Your task to perform on an android device: toggle sleep mode Image 0: 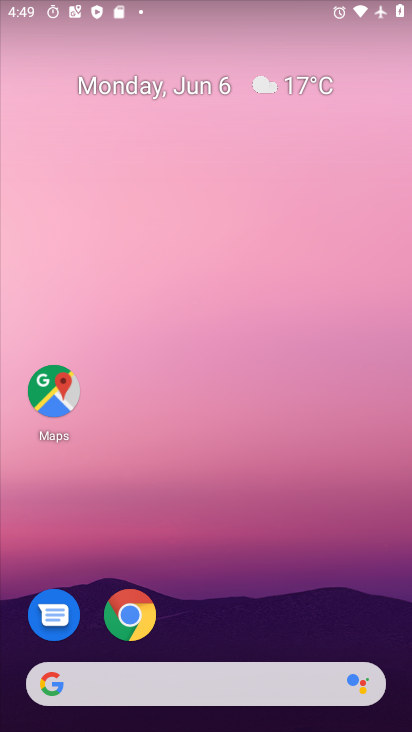
Step 0: drag from (250, 556) to (170, 34)
Your task to perform on an android device: toggle sleep mode Image 1: 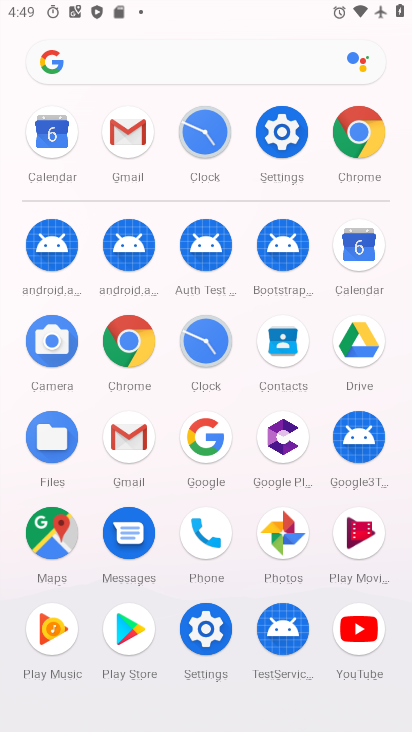
Step 1: drag from (10, 569) to (8, 227)
Your task to perform on an android device: toggle sleep mode Image 2: 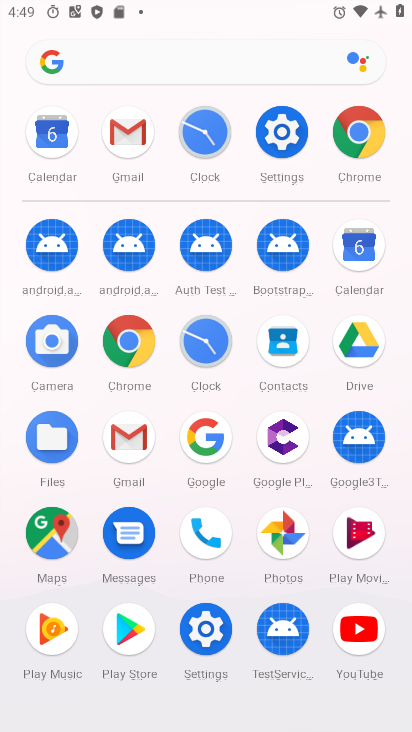
Step 2: click (205, 624)
Your task to perform on an android device: toggle sleep mode Image 3: 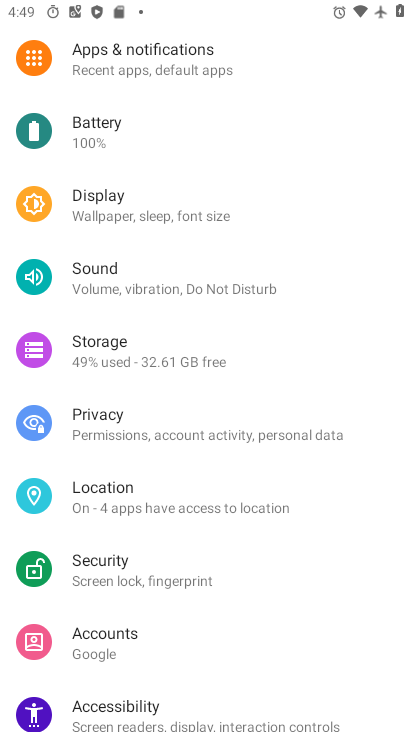
Step 3: drag from (252, 423) to (251, 644)
Your task to perform on an android device: toggle sleep mode Image 4: 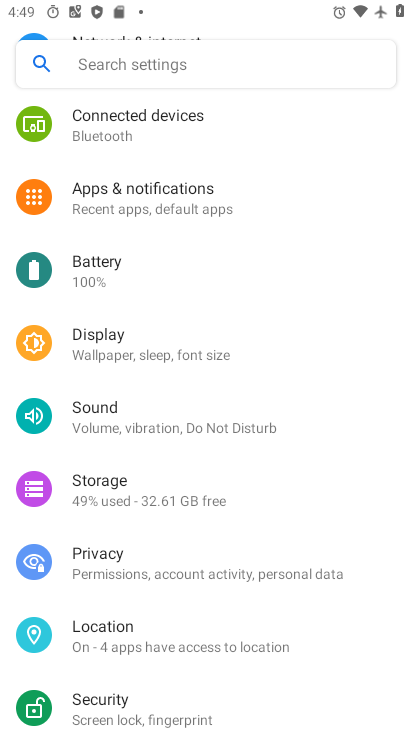
Step 4: drag from (266, 169) to (229, 550)
Your task to perform on an android device: toggle sleep mode Image 5: 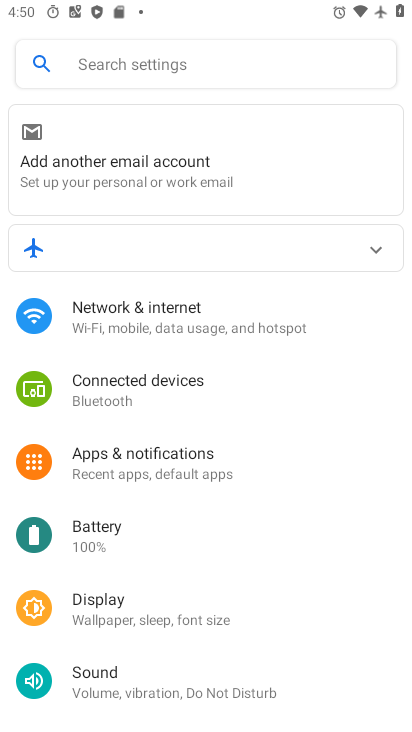
Step 5: click (215, 313)
Your task to perform on an android device: toggle sleep mode Image 6: 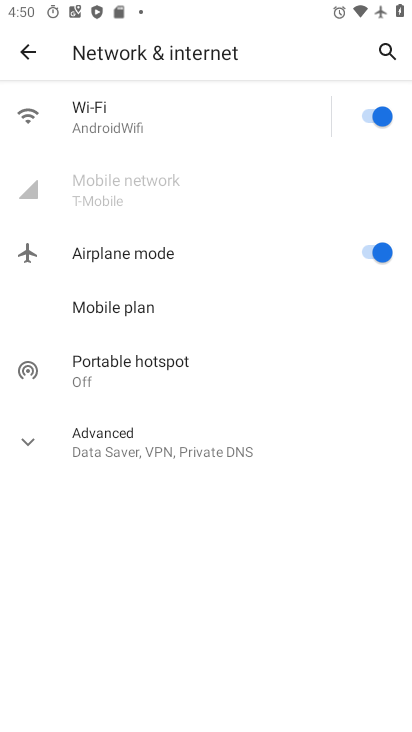
Step 6: click (30, 49)
Your task to perform on an android device: toggle sleep mode Image 7: 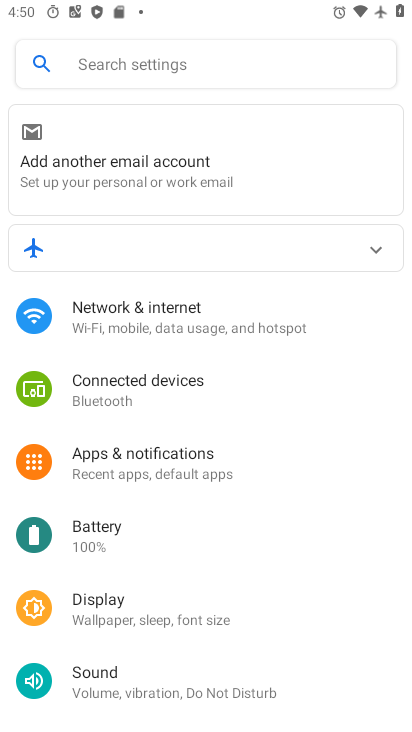
Step 7: drag from (268, 593) to (266, 336)
Your task to perform on an android device: toggle sleep mode Image 8: 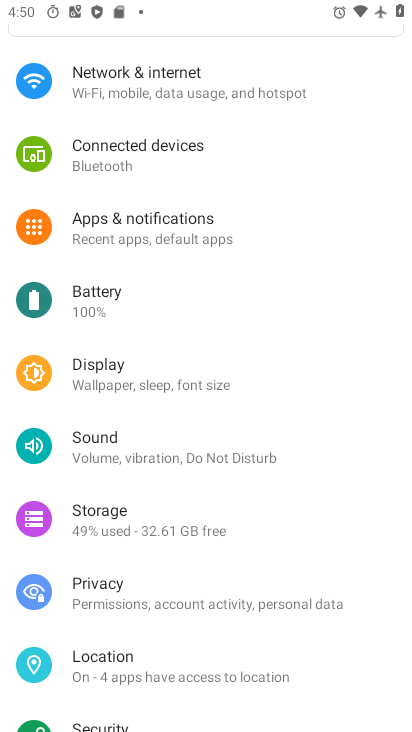
Step 8: drag from (225, 147) to (238, 404)
Your task to perform on an android device: toggle sleep mode Image 9: 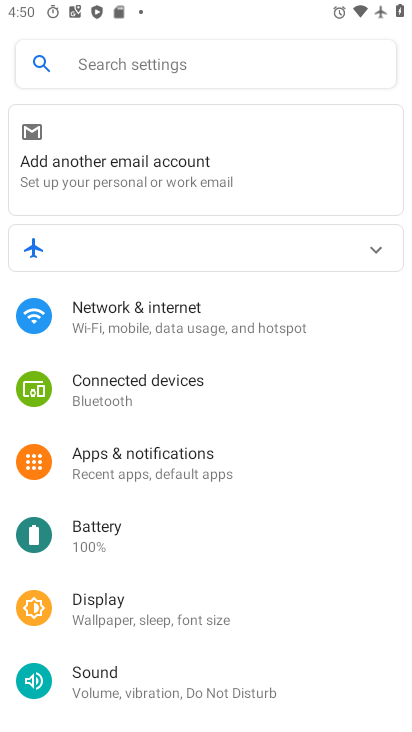
Step 9: drag from (273, 517) to (285, 256)
Your task to perform on an android device: toggle sleep mode Image 10: 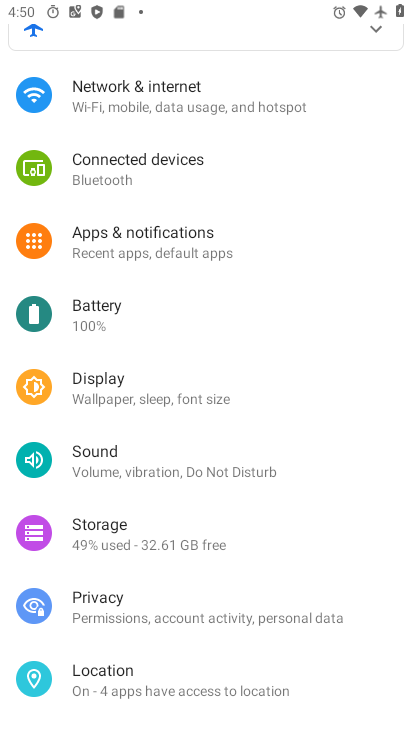
Step 10: click (198, 379)
Your task to perform on an android device: toggle sleep mode Image 11: 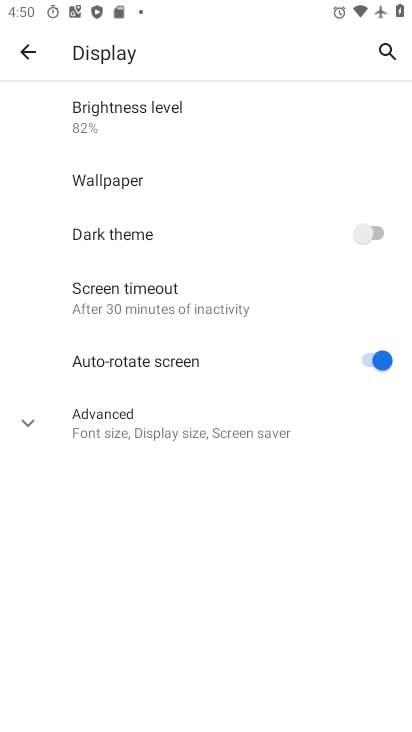
Step 11: click (24, 443)
Your task to perform on an android device: toggle sleep mode Image 12: 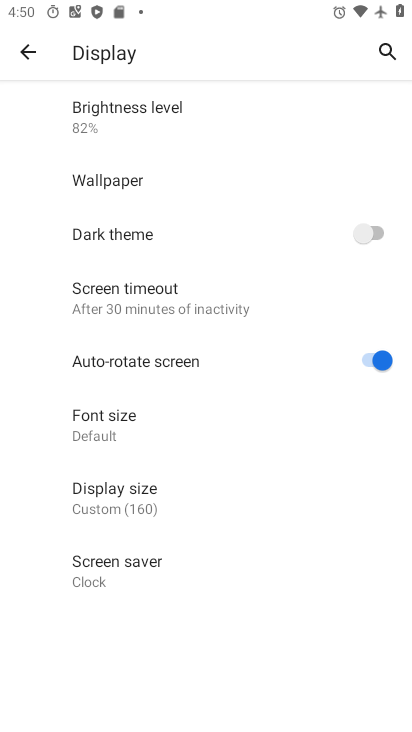
Step 12: task complete